Your task to perform on an android device: delete location history Image 0: 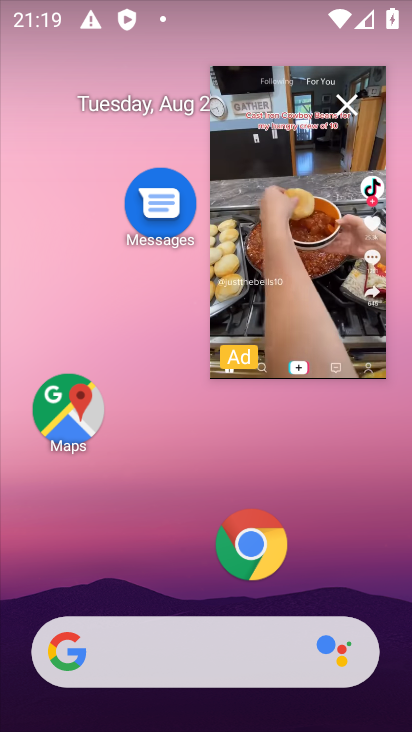
Step 0: click (343, 103)
Your task to perform on an android device: delete location history Image 1: 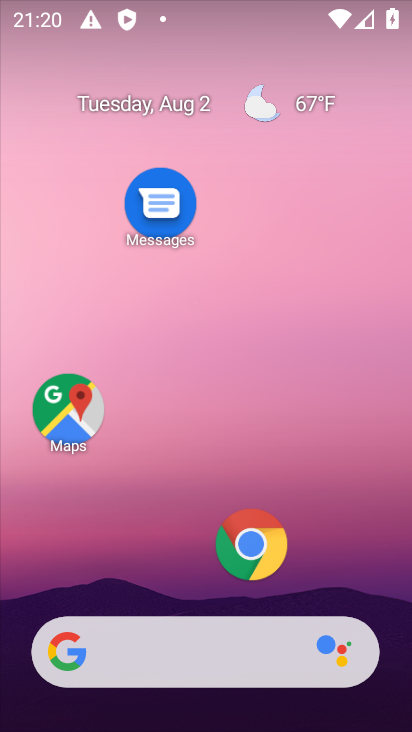
Step 1: click (82, 413)
Your task to perform on an android device: delete location history Image 2: 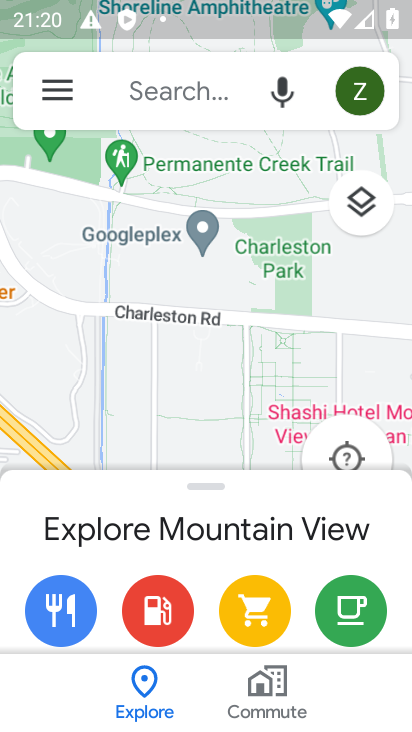
Step 2: click (50, 92)
Your task to perform on an android device: delete location history Image 3: 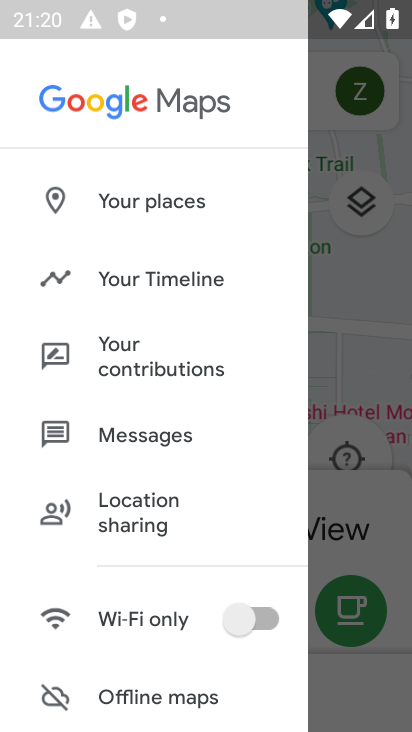
Step 3: drag from (139, 672) to (177, 517)
Your task to perform on an android device: delete location history Image 4: 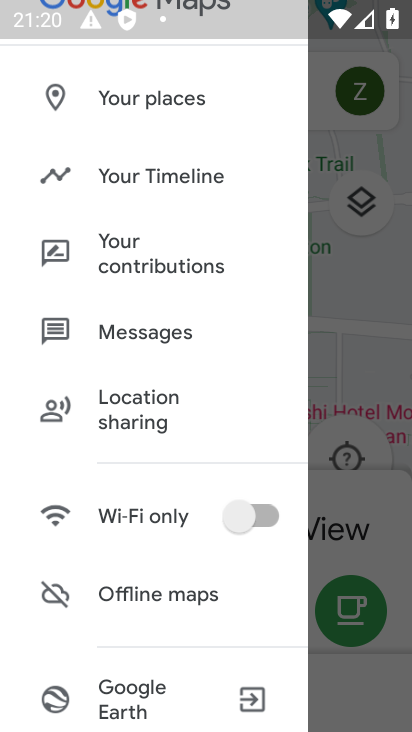
Step 4: click (135, 192)
Your task to perform on an android device: delete location history Image 5: 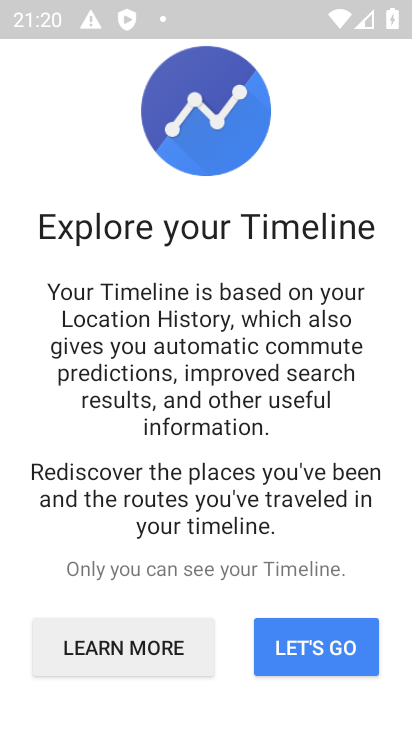
Step 5: click (312, 645)
Your task to perform on an android device: delete location history Image 6: 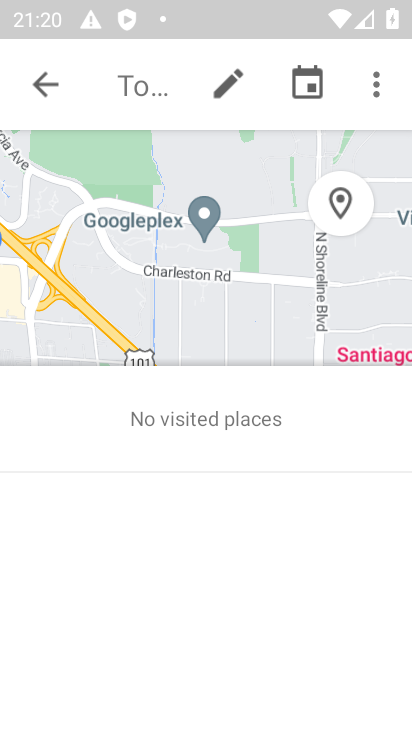
Step 6: click (369, 83)
Your task to perform on an android device: delete location history Image 7: 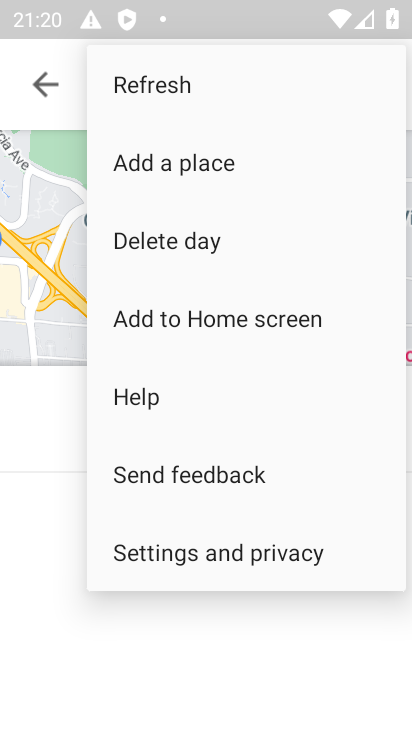
Step 7: click (239, 551)
Your task to perform on an android device: delete location history Image 8: 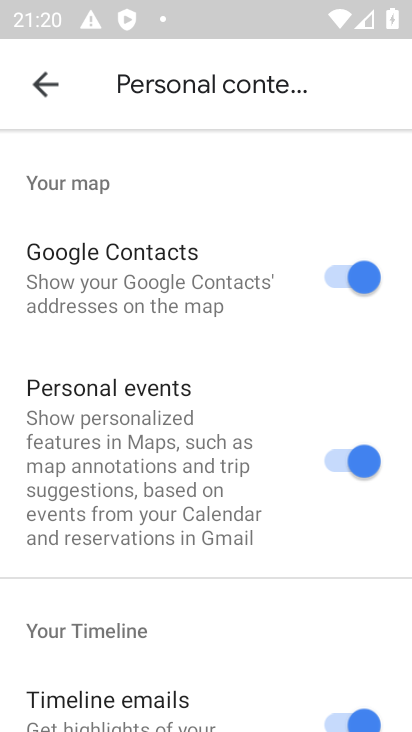
Step 8: drag from (212, 655) to (220, 250)
Your task to perform on an android device: delete location history Image 9: 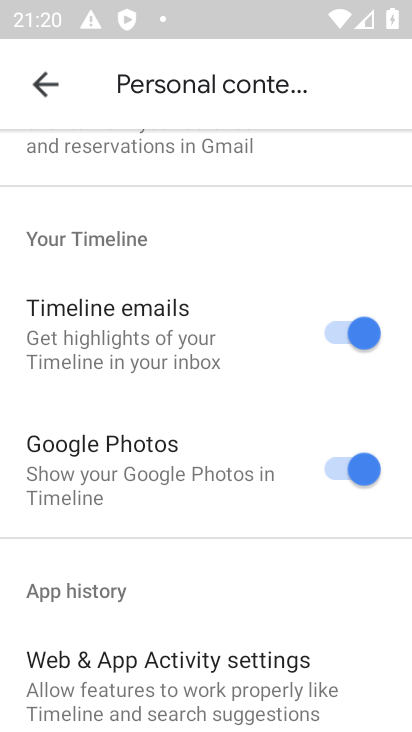
Step 9: drag from (196, 638) to (190, 278)
Your task to perform on an android device: delete location history Image 10: 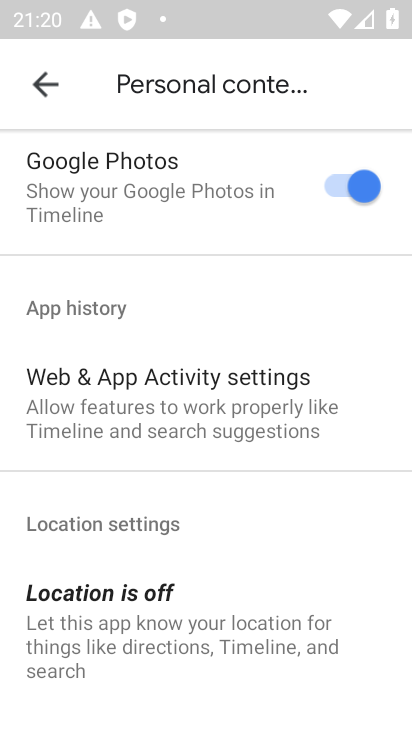
Step 10: drag from (184, 596) to (198, 257)
Your task to perform on an android device: delete location history Image 11: 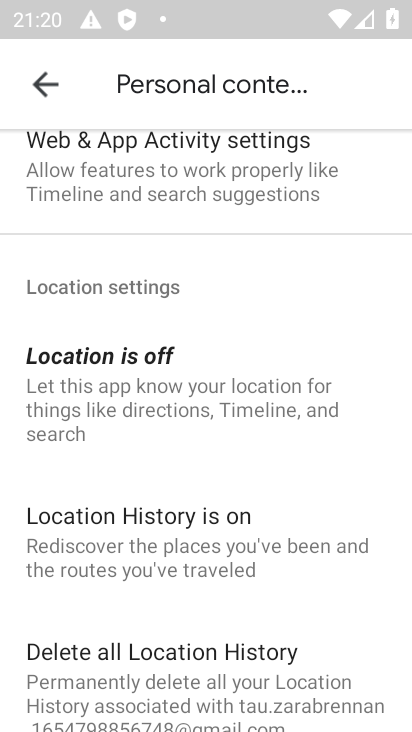
Step 11: click (193, 690)
Your task to perform on an android device: delete location history Image 12: 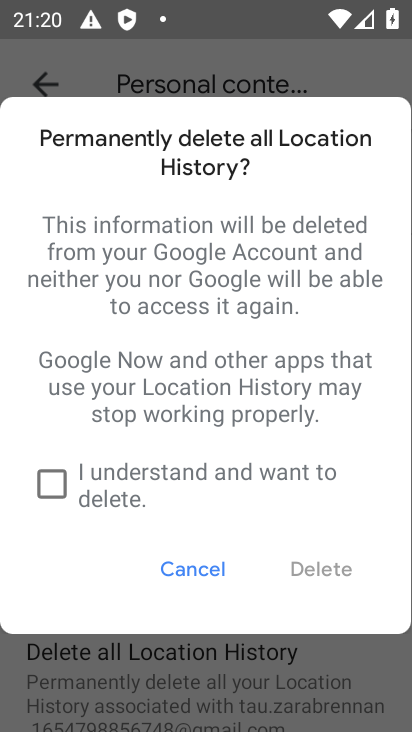
Step 12: click (113, 472)
Your task to perform on an android device: delete location history Image 13: 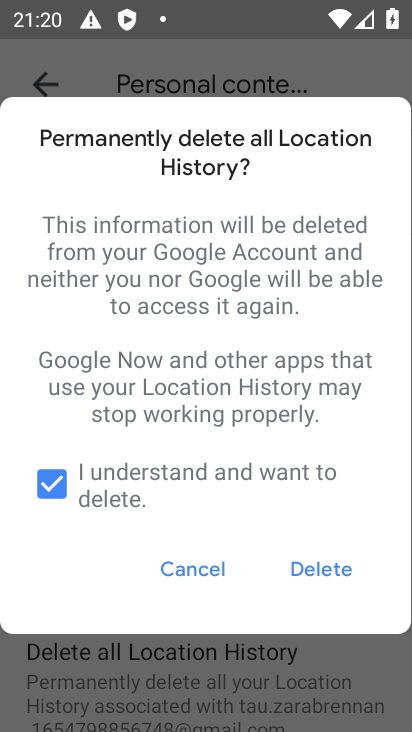
Step 13: click (301, 571)
Your task to perform on an android device: delete location history Image 14: 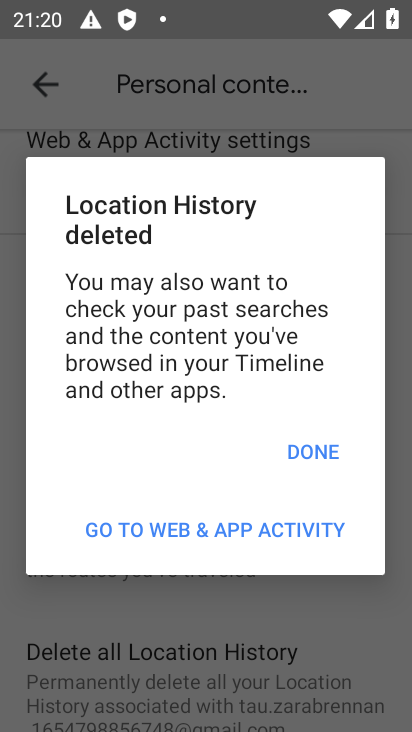
Step 14: click (315, 455)
Your task to perform on an android device: delete location history Image 15: 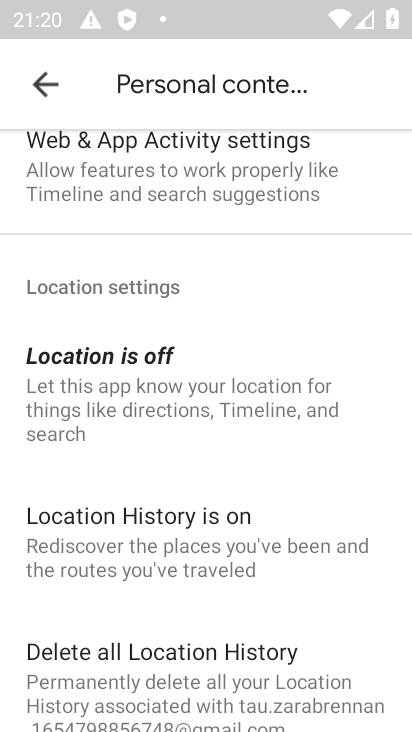
Step 15: task complete